Your task to perform on an android device: open a bookmark in the chrome app Image 0: 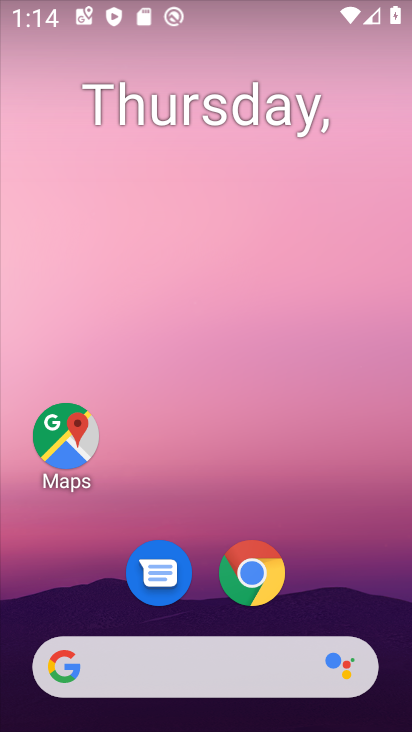
Step 0: drag from (347, 558) to (295, 15)
Your task to perform on an android device: open a bookmark in the chrome app Image 1: 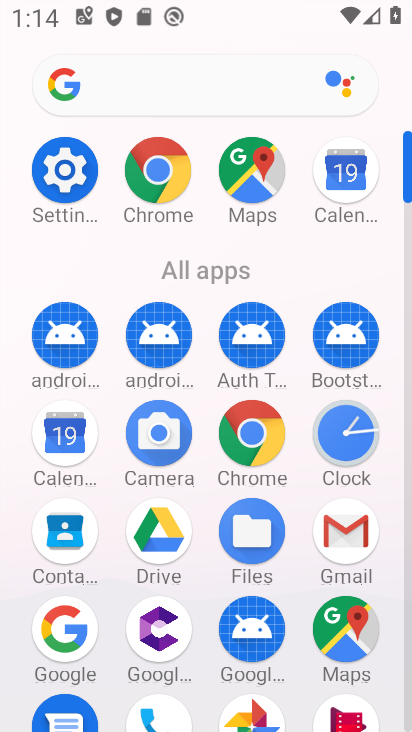
Step 1: click (248, 432)
Your task to perform on an android device: open a bookmark in the chrome app Image 2: 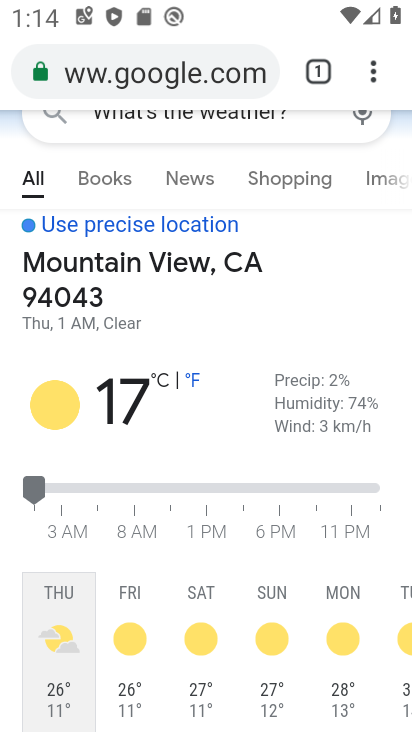
Step 2: task complete